Your task to perform on an android device: Open calendar and show me the first week of next month Image 0: 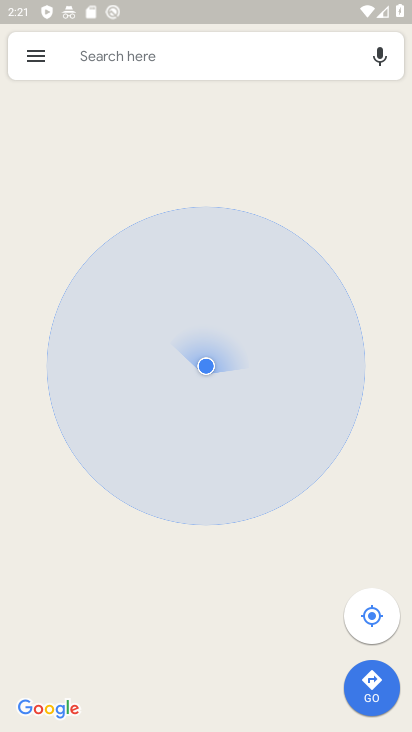
Step 0: press home button
Your task to perform on an android device: Open calendar and show me the first week of next month Image 1: 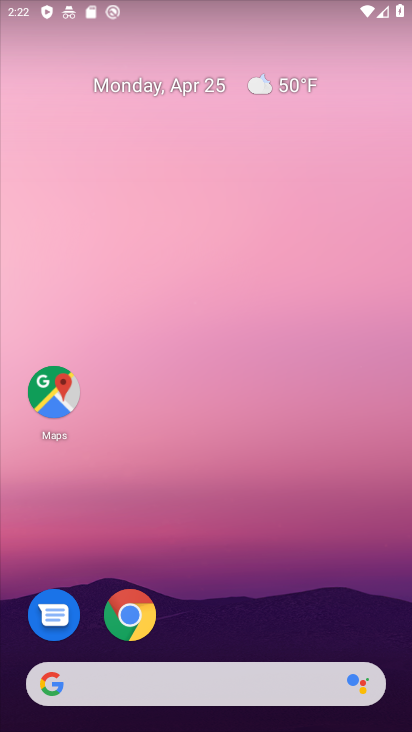
Step 1: drag from (249, 728) to (252, 124)
Your task to perform on an android device: Open calendar and show me the first week of next month Image 2: 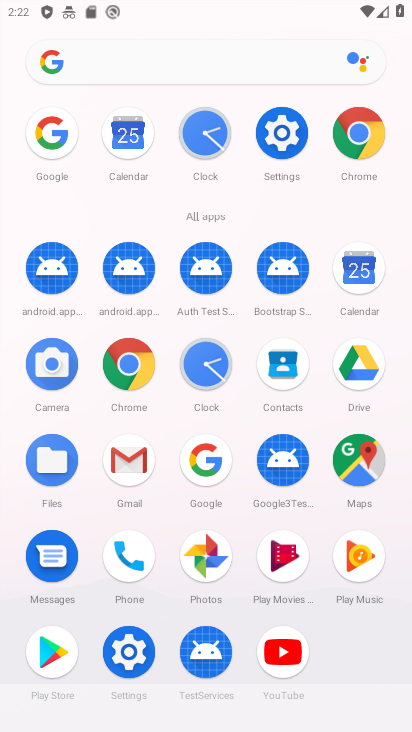
Step 2: click (364, 268)
Your task to perform on an android device: Open calendar and show me the first week of next month Image 3: 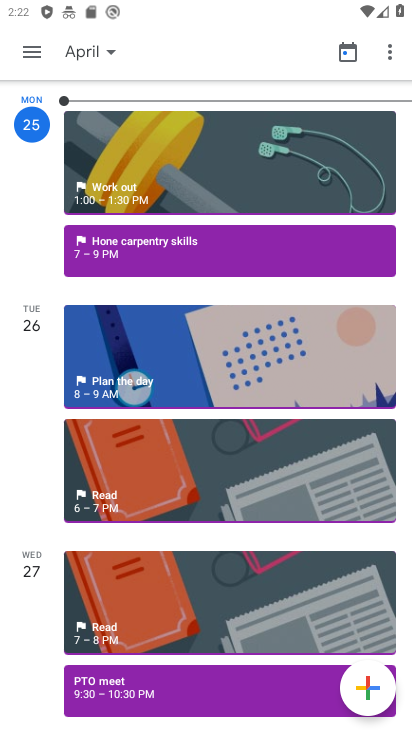
Step 3: click (74, 52)
Your task to perform on an android device: Open calendar and show me the first week of next month Image 4: 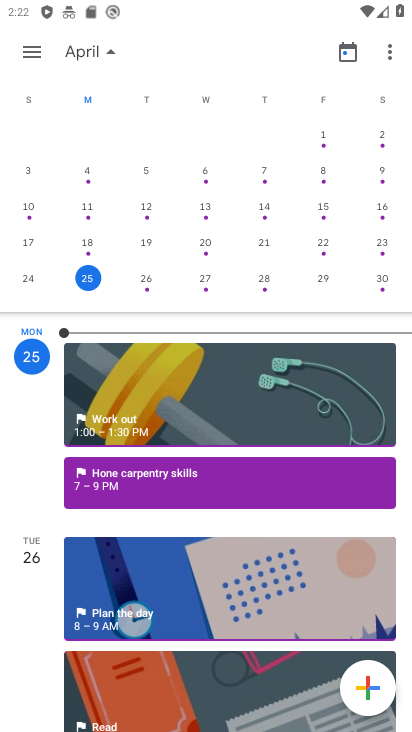
Step 4: drag from (361, 218) to (2, 225)
Your task to perform on an android device: Open calendar and show me the first week of next month Image 5: 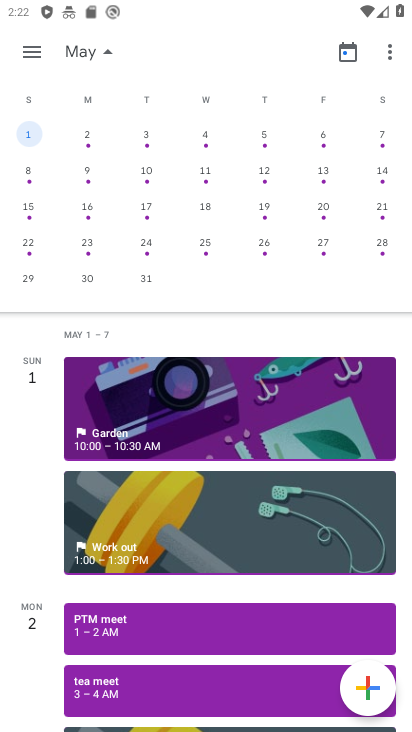
Step 5: click (84, 129)
Your task to perform on an android device: Open calendar and show me the first week of next month Image 6: 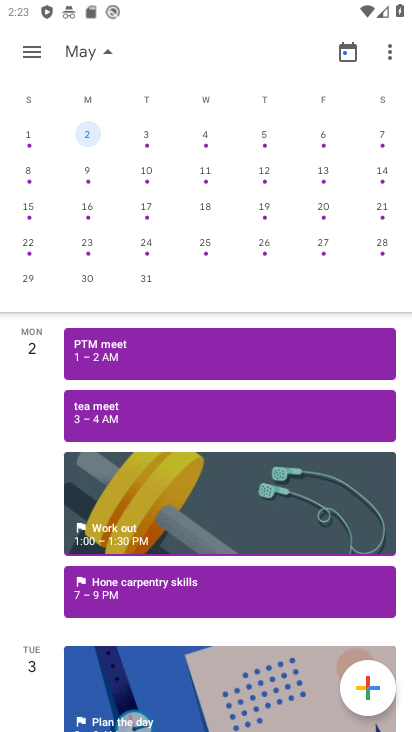
Step 6: task complete